Your task to perform on an android device: toggle notification dots Image 0: 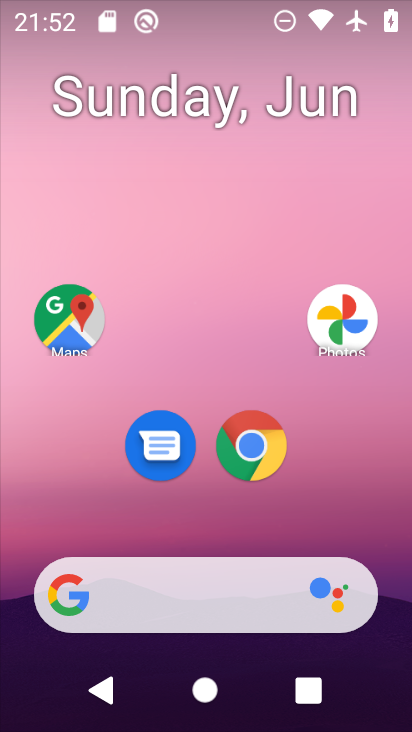
Step 0: drag from (281, 501) to (283, 11)
Your task to perform on an android device: toggle notification dots Image 1: 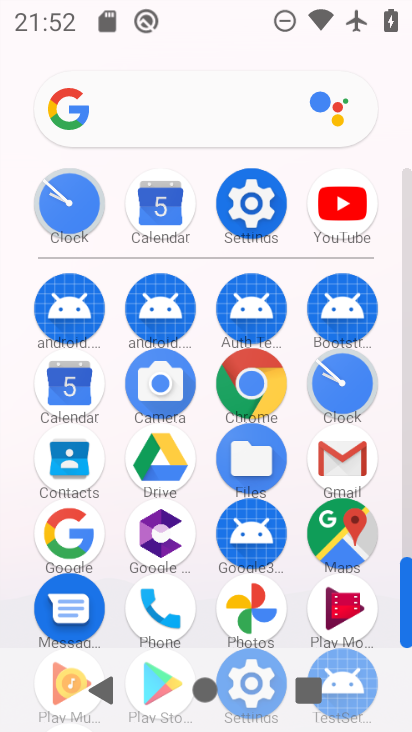
Step 1: click (259, 203)
Your task to perform on an android device: toggle notification dots Image 2: 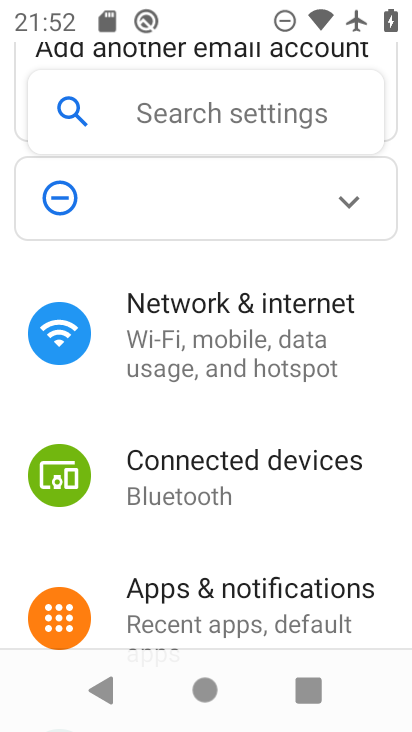
Step 2: click (269, 596)
Your task to perform on an android device: toggle notification dots Image 3: 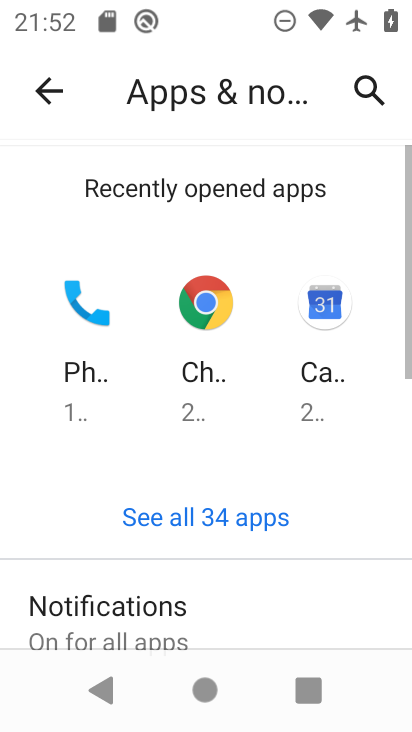
Step 3: click (83, 609)
Your task to perform on an android device: toggle notification dots Image 4: 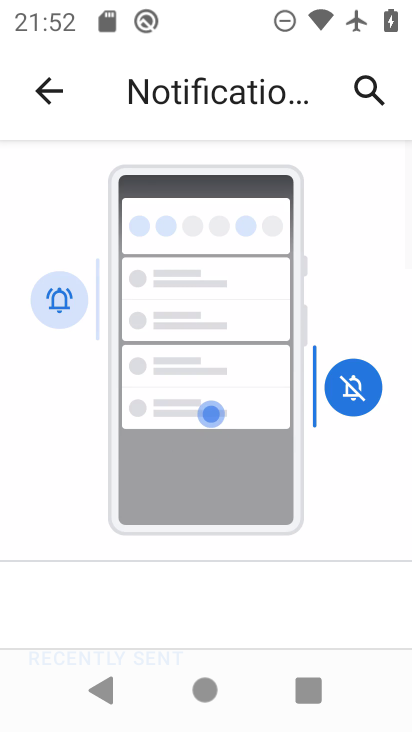
Step 4: drag from (264, 621) to (309, 156)
Your task to perform on an android device: toggle notification dots Image 5: 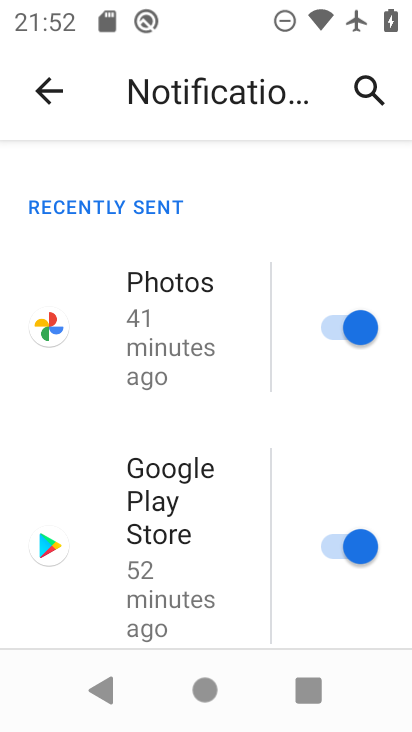
Step 5: drag from (324, 579) to (338, 119)
Your task to perform on an android device: toggle notification dots Image 6: 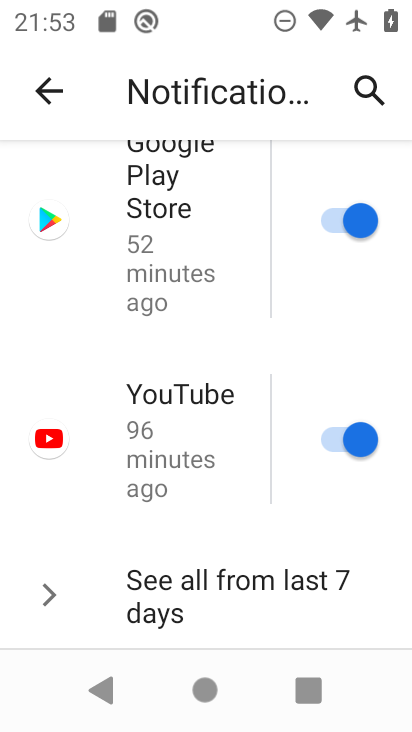
Step 6: drag from (277, 593) to (284, 133)
Your task to perform on an android device: toggle notification dots Image 7: 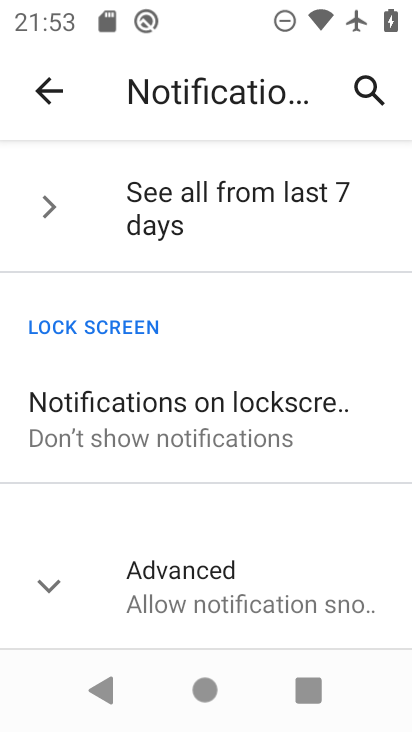
Step 7: click (223, 589)
Your task to perform on an android device: toggle notification dots Image 8: 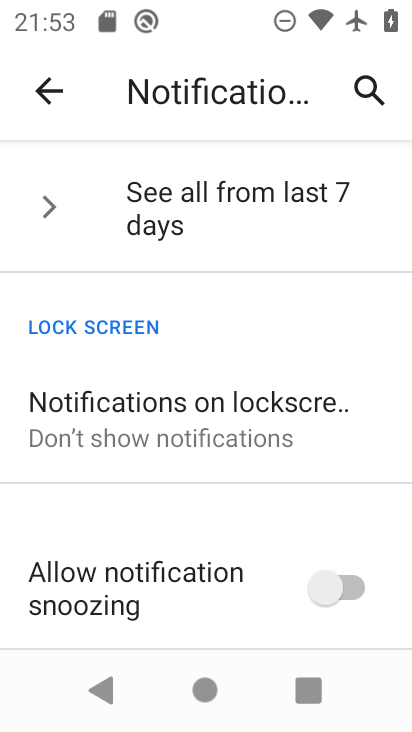
Step 8: drag from (216, 624) to (217, 206)
Your task to perform on an android device: toggle notification dots Image 9: 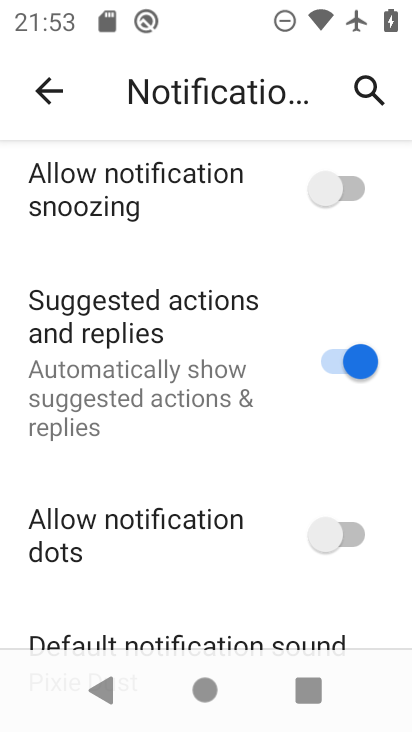
Step 9: click (332, 536)
Your task to perform on an android device: toggle notification dots Image 10: 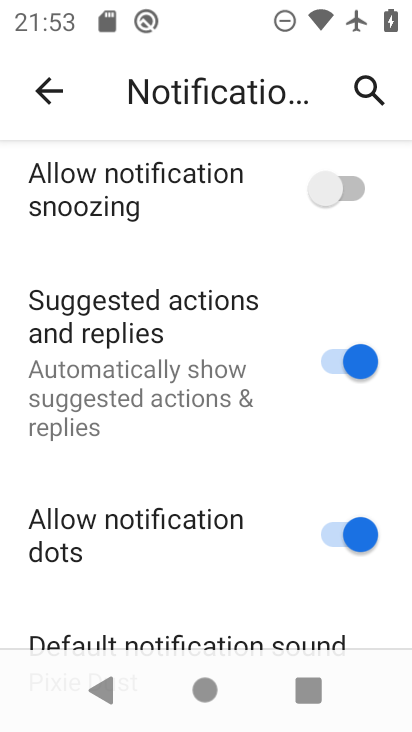
Step 10: task complete